Your task to perform on an android device: Open Wikipedia Image 0: 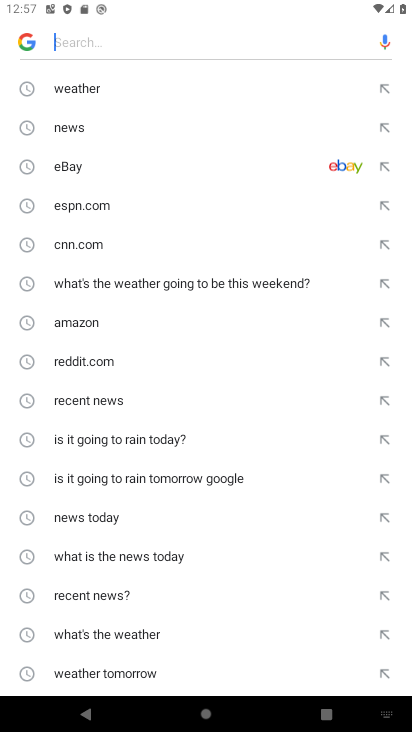
Step 0: press home button
Your task to perform on an android device: Open Wikipedia Image 1: 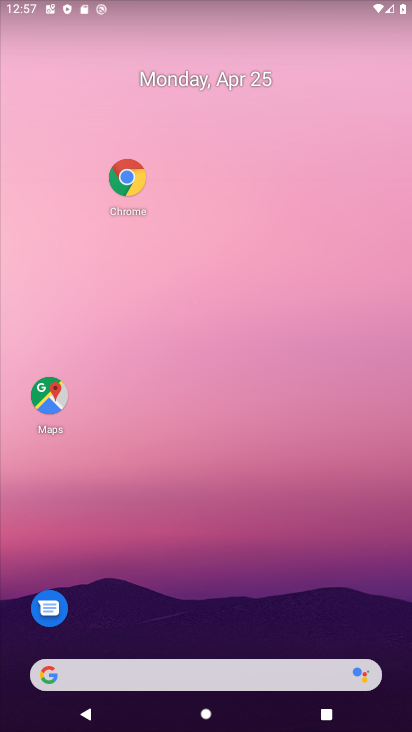
Step 1: drag from (325, 569) to (321, 194)
Your task to perform on an android device: Open Wikipedia Image 2: 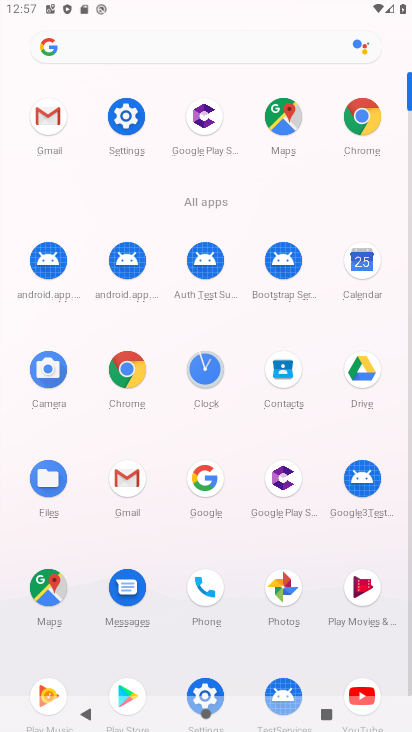
Step 2: click (128, 378)
Your task to perform on an android device: Open Wikipedia Image 3: 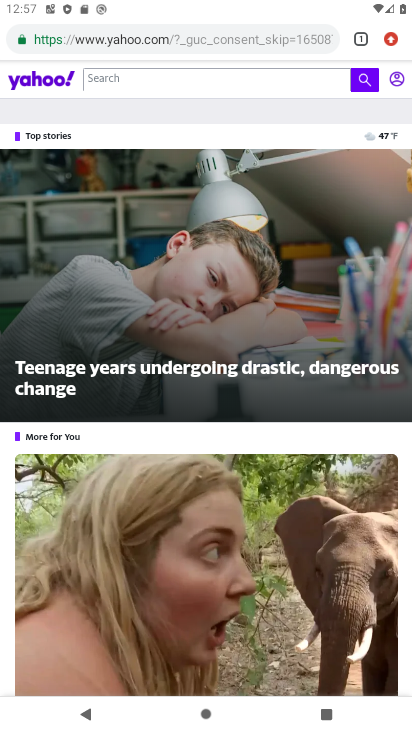
Step 3: click (202, 29)
Your task to perform on an android device: Open Wikipedia Image 4: 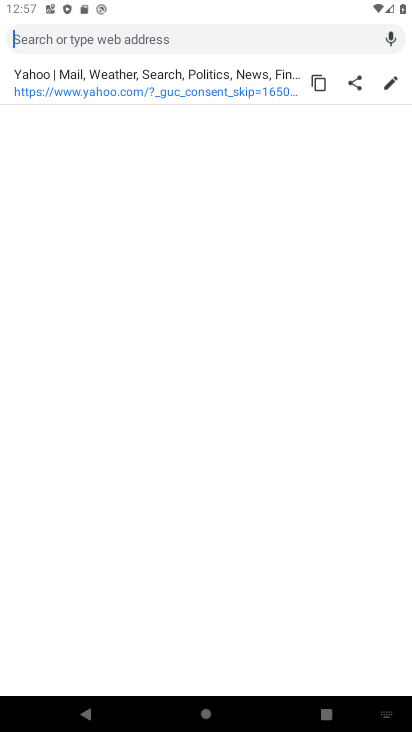
Step 4: type "wikipedia"
Your task to perform on an android device: Open Wikipedia Image 5: 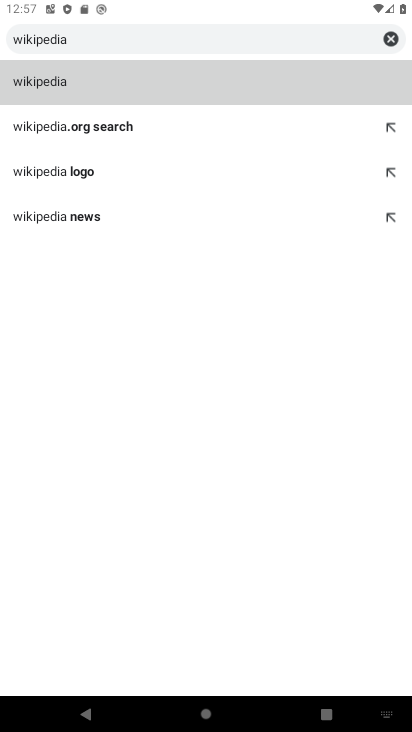
Step 5: click (44, 79)
Your task to perform on an android device: Open Wikipedia Image 6: 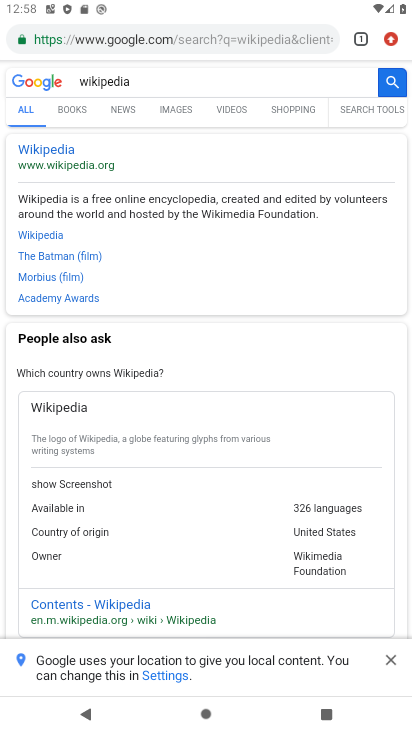
Step 6: click (48, 142)
Your task to perform on an android device: Open Wikipedia Image 7: 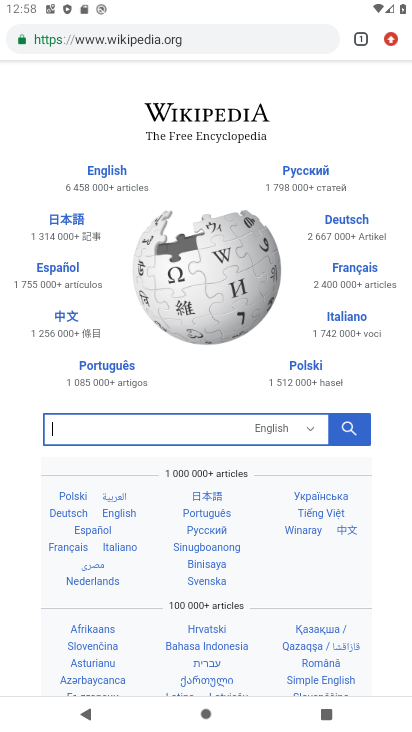
Step 7: task complete